Your task to perform on an android device: Show me popular games on the Play Store Image 0: 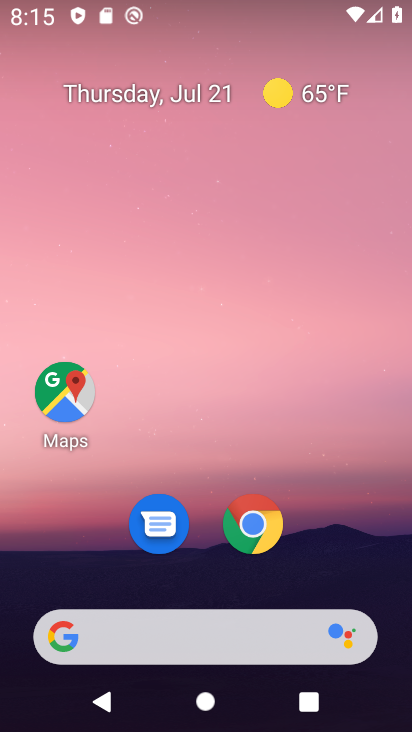
Step 0: drag from (228, 630) to (169, 142)
Your task to perform on an android device: Show me popular games on the Play Store Image 1: 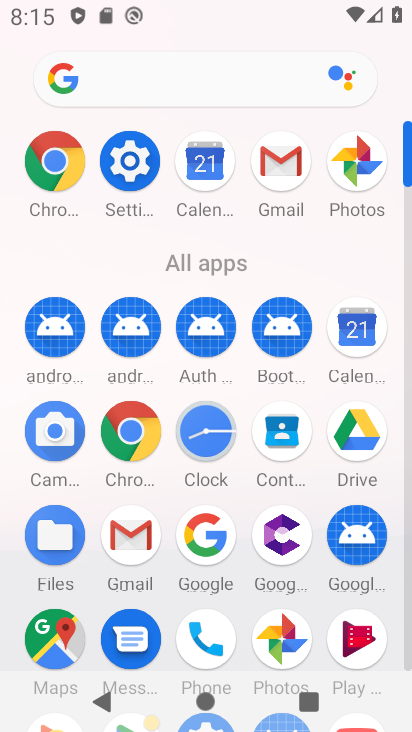
Step 1: drag from (233, 585) to (180, 28)
Your task to perform on an android device: Show me popular games on the Play Store Image 2: 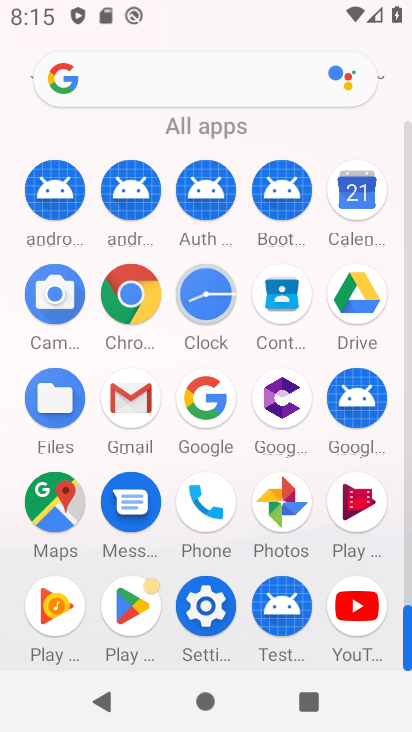
Step 2: click (129, 592)
Your task to perform on an android device: Show me popular games on the Play Store Image 3: 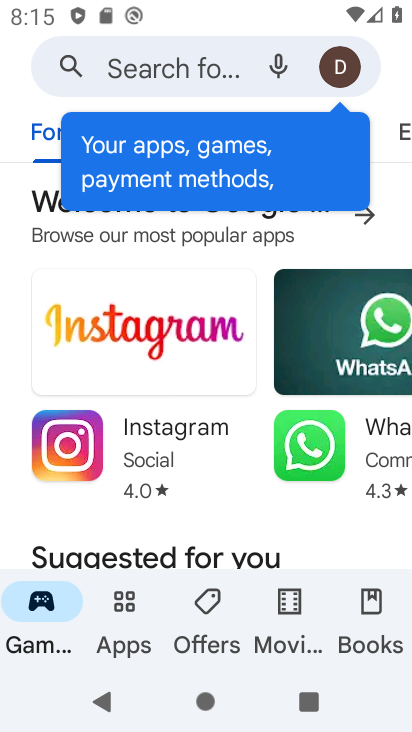
Step 3: drag from (175, 496) to (165, 152)
Your task to perform on an android device: Show me popular games on the Play Store Image 4: 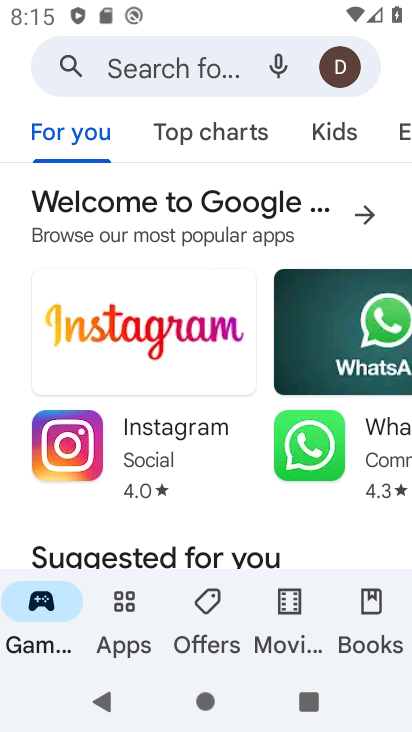
Step 4: drag from (233, 519) to (232, 127)
Your task to perform on an android device: Show me popular games on the Play Store Image 5: 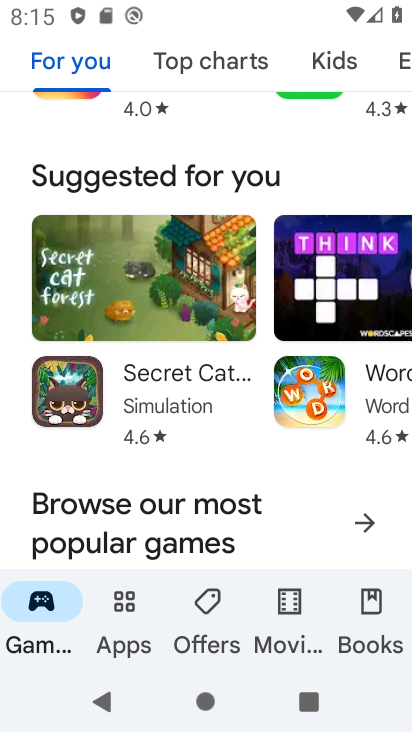
Step 5: click (251, 521)
Your task to perform on an android device: Show me popular games on the Play Store Image 6: 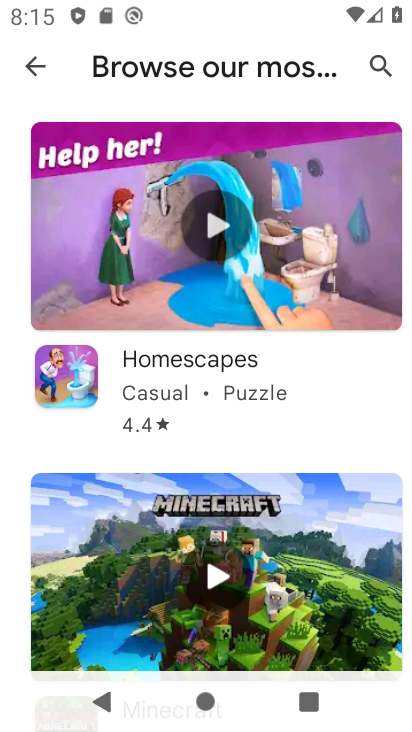
Step 6: task complete